Your task to perform on an android device: What's the latest video from GameSpot eSports? Image 0: 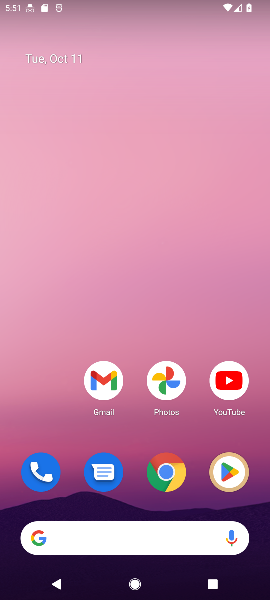
Step 0: click (225, 375)
Your task to perform on an android device: What's the latest video from GameSpot eSports? Image 1: 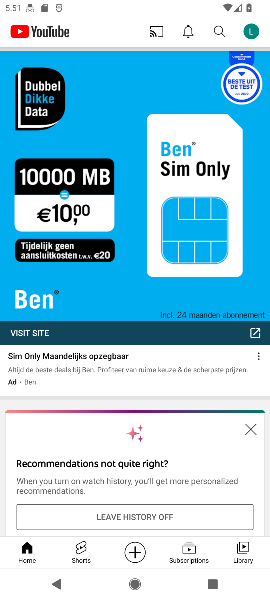
Step 1: click (220, 36)
Your task to perform on an android device: What's the latest video from GameSpot eSports? Image 2: 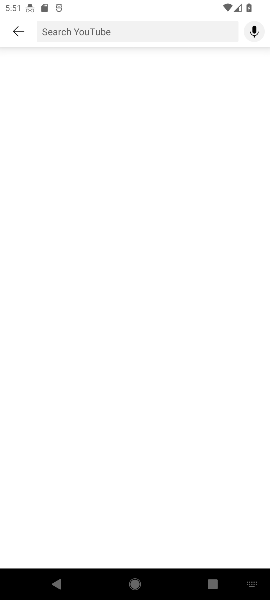
Step 2: type " latest video from GameSpot eSports?"
Your task to perform on an android device: What's the latest video from GameSpot eSports? Image 3: 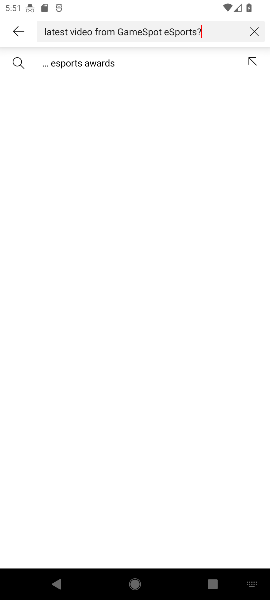
Step 3: click (107, 71)
Your task to perform on an android device: What's the latest video from GameSpot eSports? Image 4: 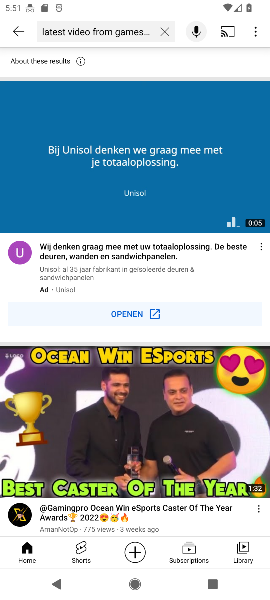
Step 4: task complete